Your task to perform on an android device: Open Youtube and go to "Your channel" Image 0: 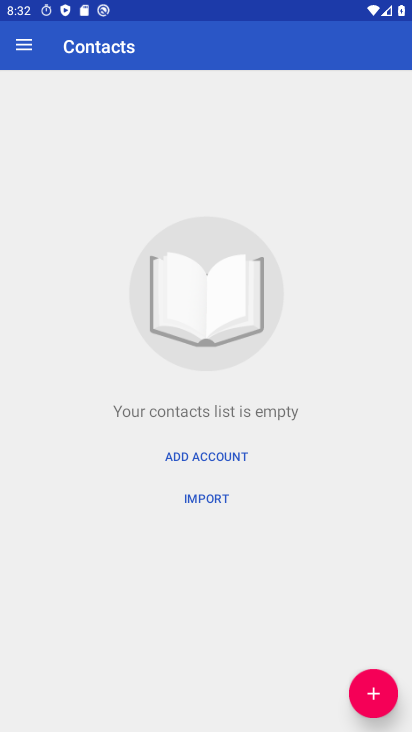
Step 0: press home button
Your task to perform on an android device: Open Youtube and go to "Your channel" Image 1: 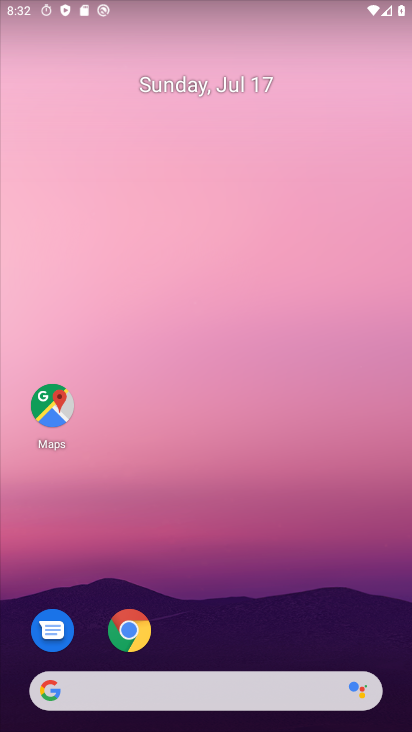
Step 1: drag from (36, 647) to (292, 62)
Your task to perform on an android device: Open Youtube and go to "Your channel" Image 2: 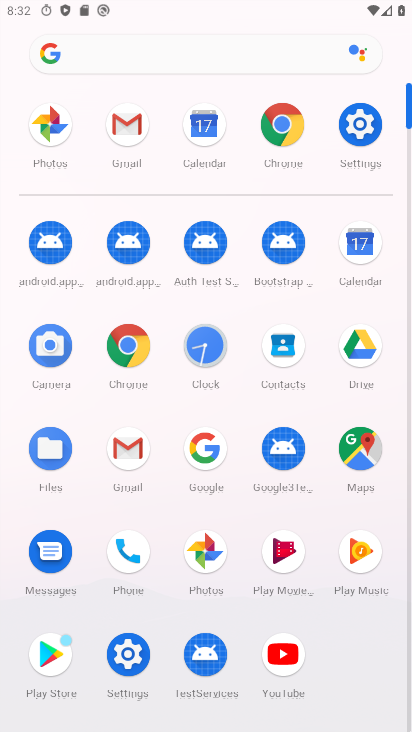
Step 2: click (278, 651)
Your task to perform on an android device: Open Youtube and go to "Your channel" Image 3: 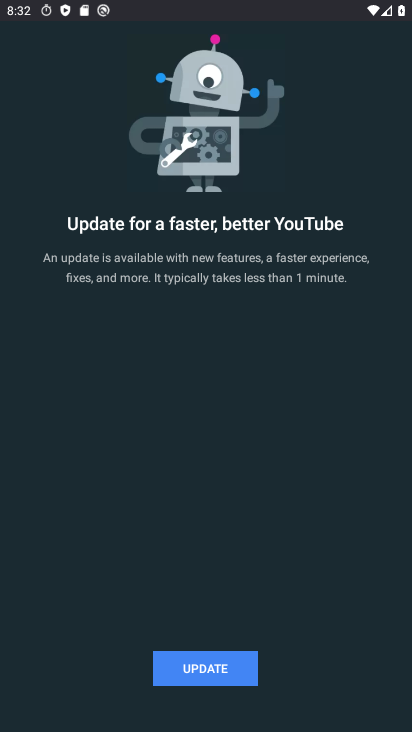
Step 3: click (168, 665)
Your task to perform on an android device: Open Youtube and go to "Your channel" Image 4: 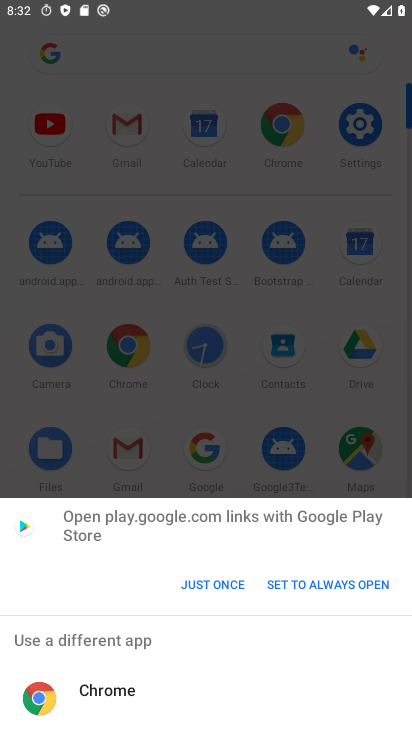
Step 4: click (214, 565)
Your task to perform on an android device: Open Youtube and go to "Your channel" Image 5: 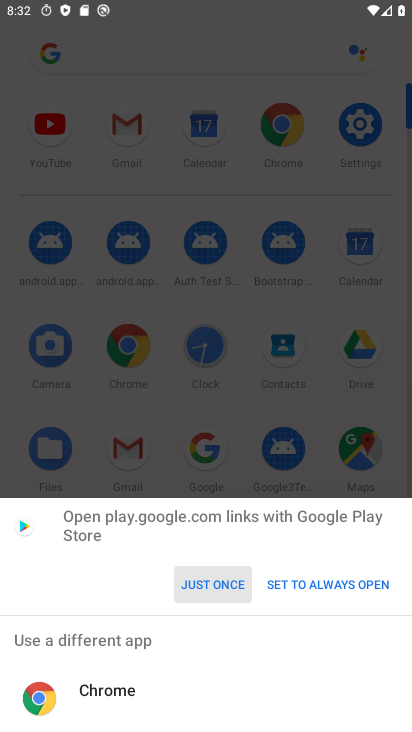
Step 5: click (213, 578)
Your task to perform on an android device: Open Youtube and go to "Your channel" Image 6: 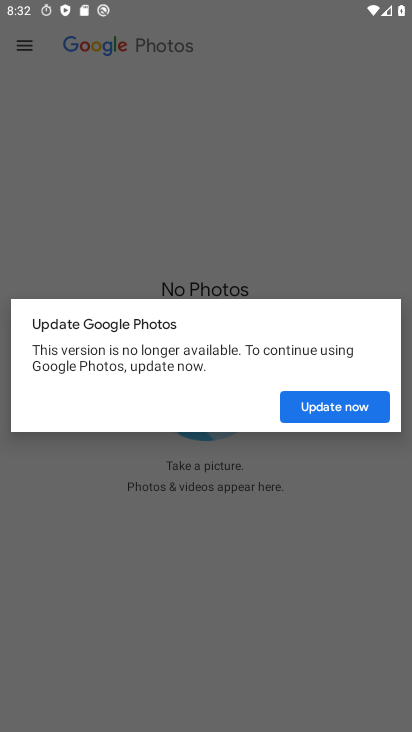
Step 6: task complete